Your task to perform on an android device: create a new album in the google photos Image 0: 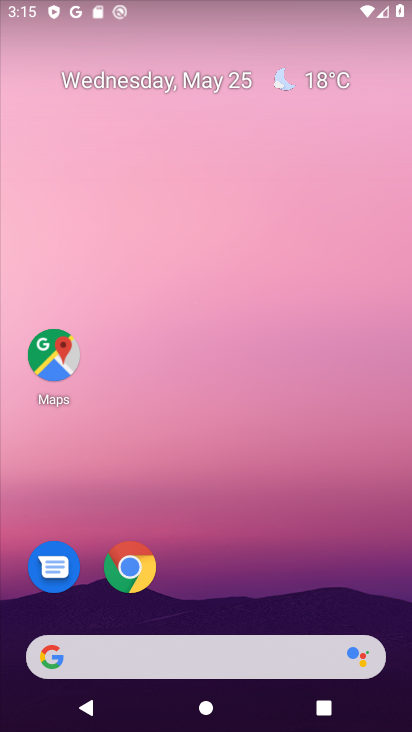
Step 0: drag from (381, 603) to (388, 175)
Your task to perform on an android device: create a new album in the google photos Image 1: 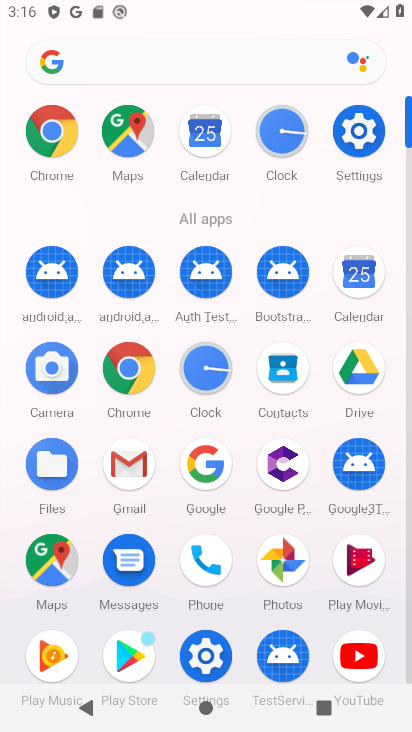
Step 1: click (299, 556)
Your task to perform on an android device: create a new album in the google photos Image 2: 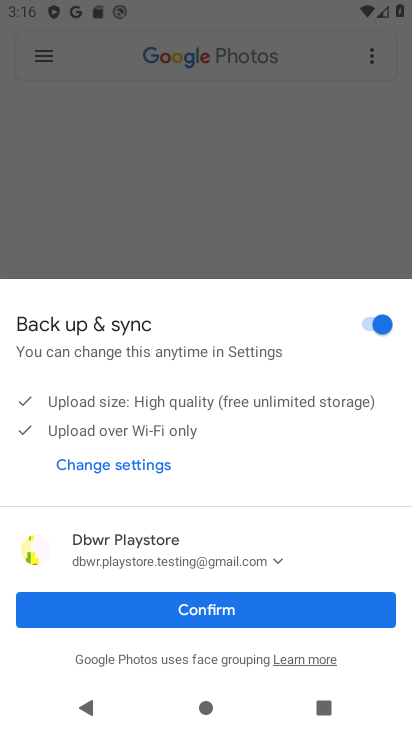
Step 2: click (252, 619)
Your task to perform on an android device: create a new album in the google photos Image 3: 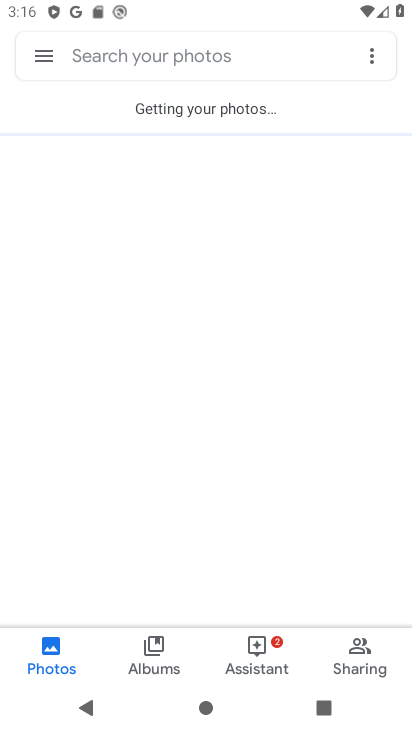
Step 3: click (373, 53)
Your task to perform on an android device: create a new album in the google photos Image 4: 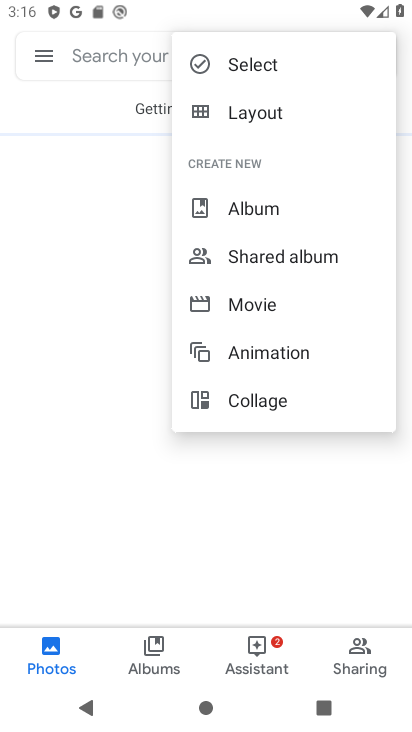
Step 4: click (270, 211)
Your task to perform on an android device: create a new album in the google photos Image 5: 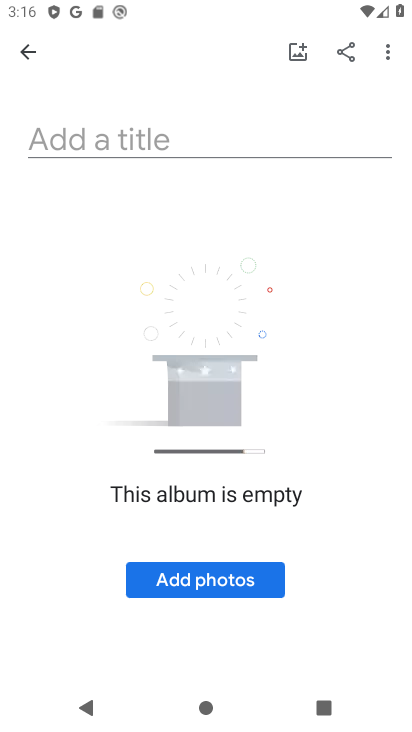
Step 5: click (221, 127)
Your task to perform on an android device: create a new album in the google photos Image 6: 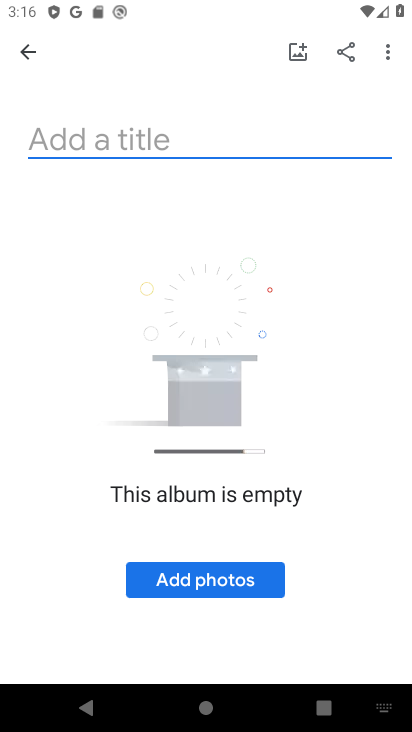
Step 6: type "fav"
Your task to perform on an android device: create a new album in the google photos Image 7: 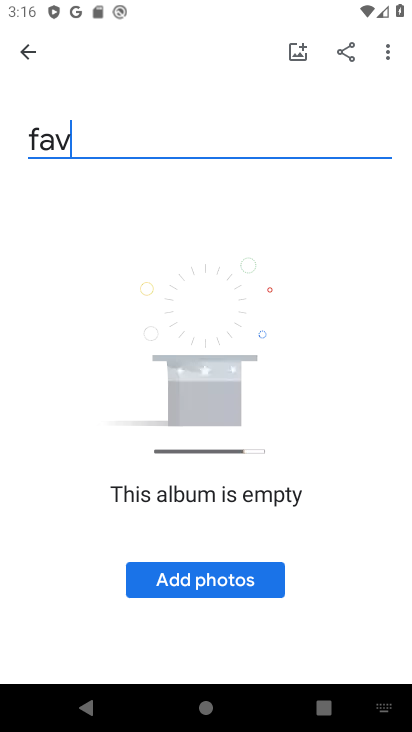
Step 7: click (230, 590)
Your task to perform on an android device: create a new album in the google photos Image 8: 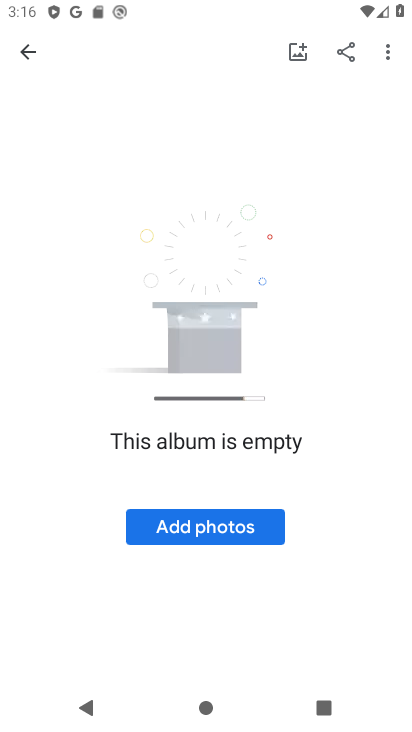
Step 8: click (225, 522)
Your task to perform on an android device: create a new album in the google photos Image 9: 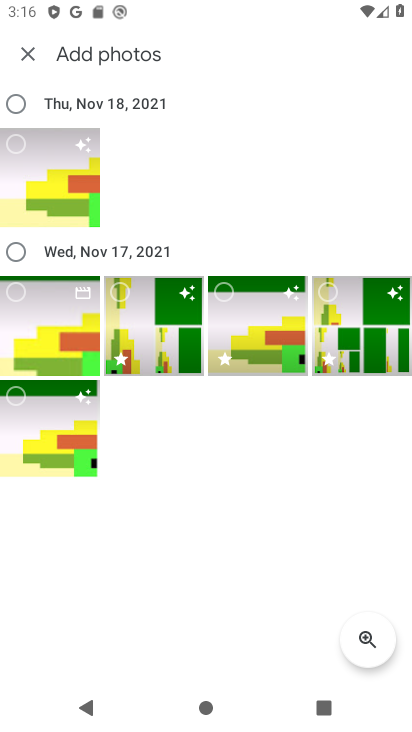
Step 9: click (75, 172)
Your task to perform on an android device: create a new album in the google photos Image 10: 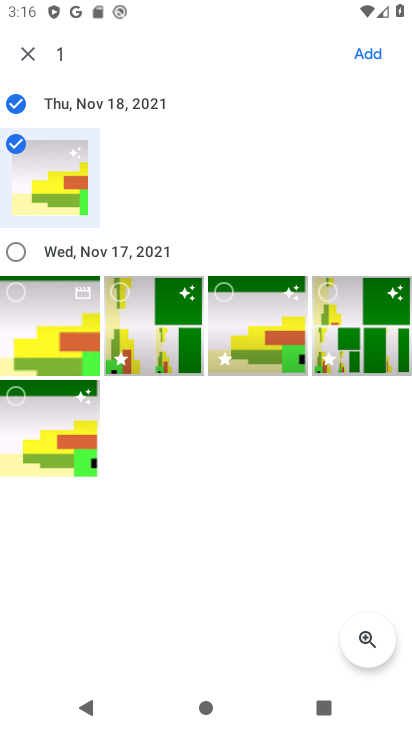
Step 10: click (366, 52)
Your task to perform on an android device: create a new album in the google photos Image 11: 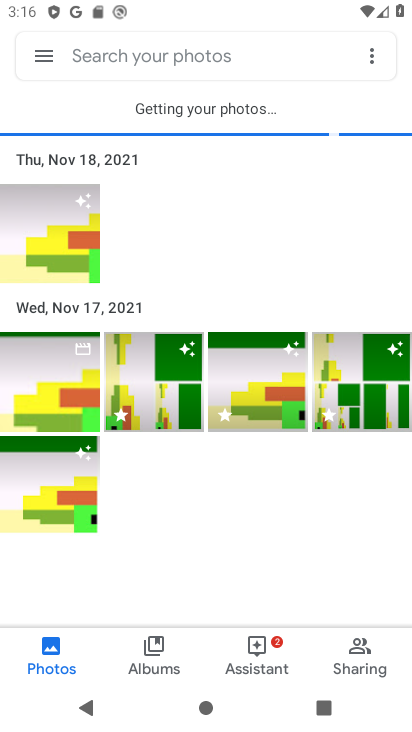
Step 11: task complete